Your task to perform on an android device: What's the weather going to be this weekend? Image 0: 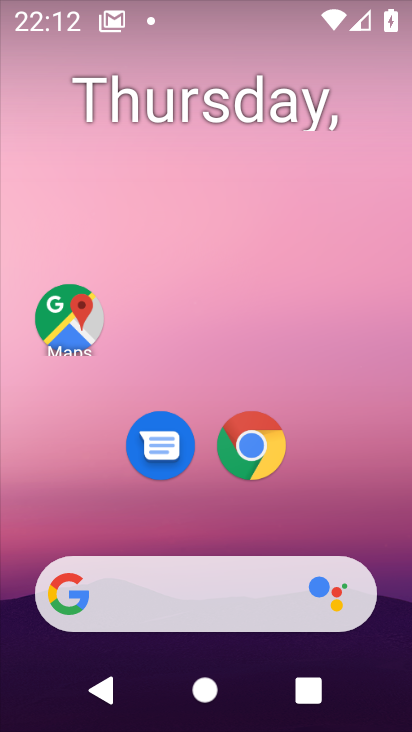
Step 0: drag from (316, 312) to (37, 318)
Your task to perform on an android device: What's the weather going to be this weekend? Image 1: 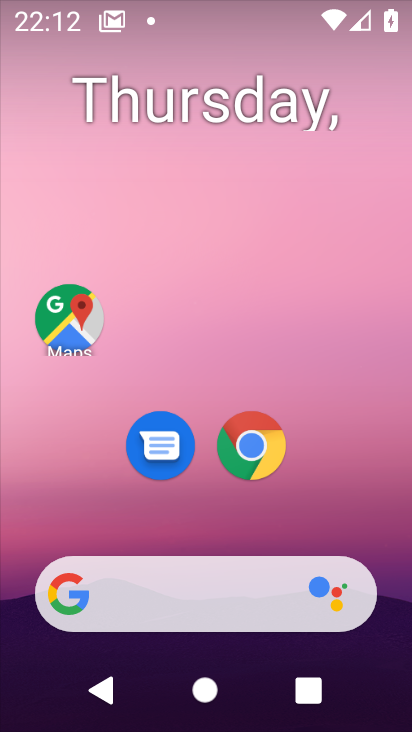
Step 1: drag from (364, 318) to (9, 337)
Your task to perform on an android device: What's the weather going to be this weekend? Image 2: 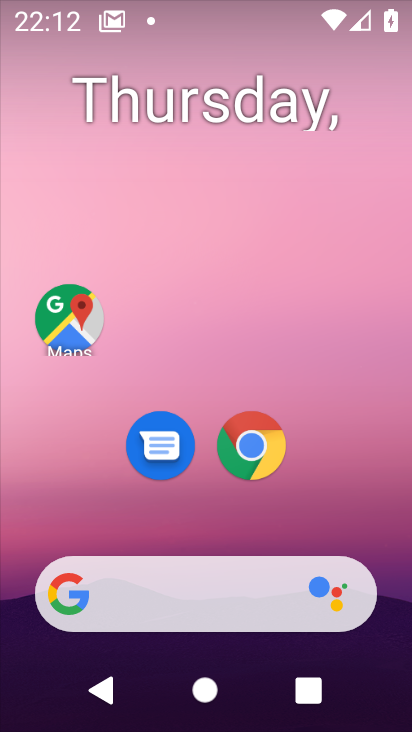
Step 2: drag from (201, 596) to (185, 22)
Your task to perform on an android device: What's the weather going to be this weekend? Image 3: 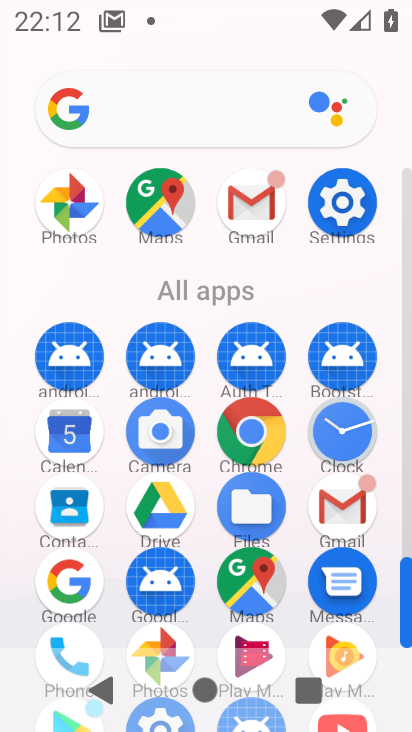
Step 3: click (77, 580)
Your task to perform on an android device: What's the weather going to be this weekend? Image 4: 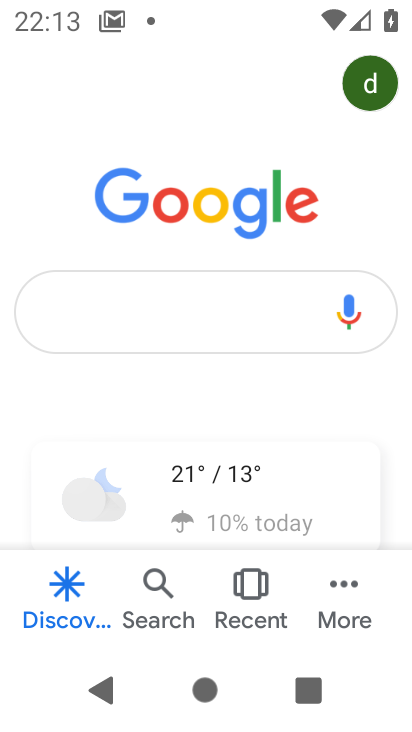
Step 4: click (200, 483)
Your task to perform on an android device: What's the weather going to be this weekend? Image 5: 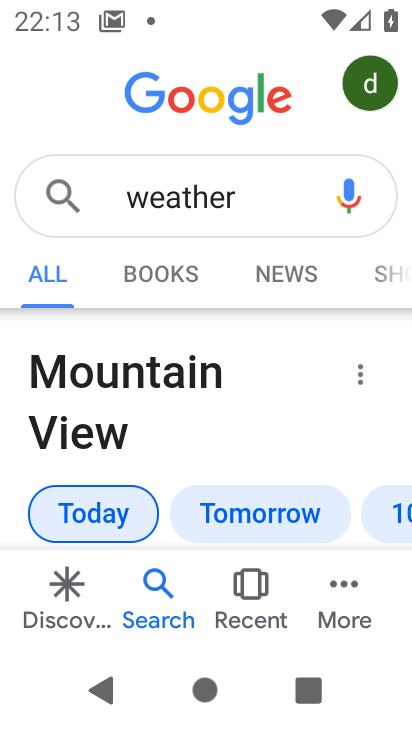
Step 5: click (402, 516)
Your task to perform on an android device: What's the weather going to be this weekend? Image 6: 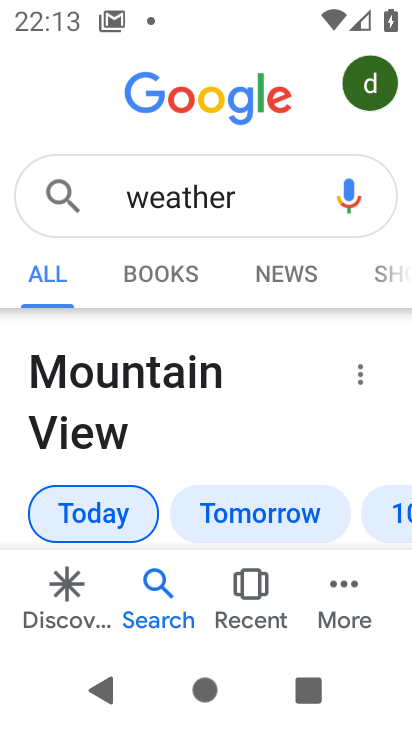
Step 6: click (242, 202)
Your task to perform on an android device: What's the weather going to be this weekend? Image 7: 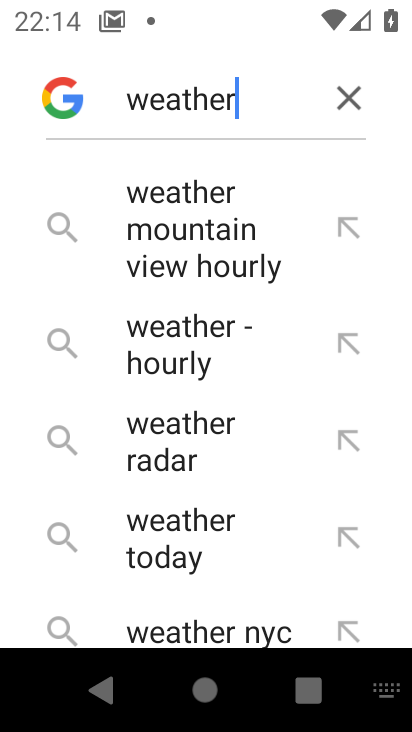
Step 7: type " this weekend"
Your task to perform on an android device: What's the weather going to be this weekend? Image 8: 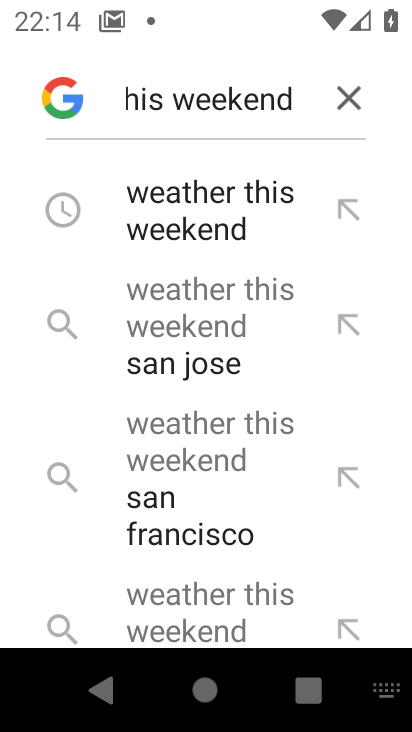
Step 8: click (259, 227)
Your task to perform on an android device: What's the weather going to be this weekend? Image 9: 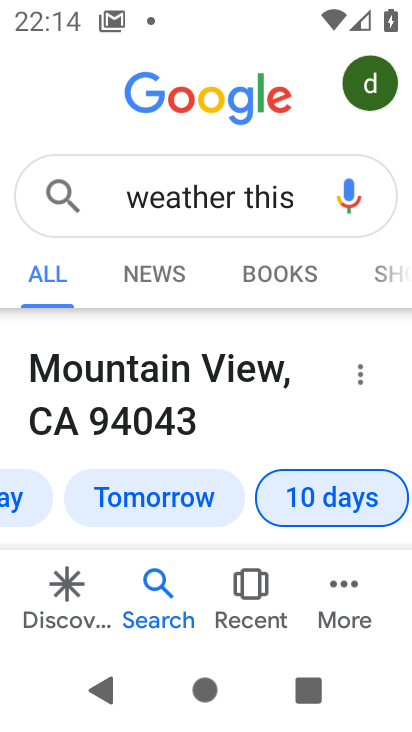
Step 9: task complete